Your task to perform on an android device: Do I have any events today? Image 0: 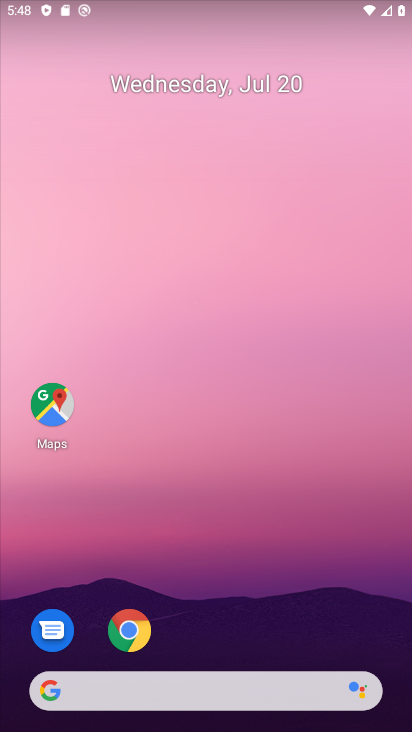
Step 0: drag from (330, 699) to (339, 59)
Your task to perform on an android device: Do I have any events today? Image 1: 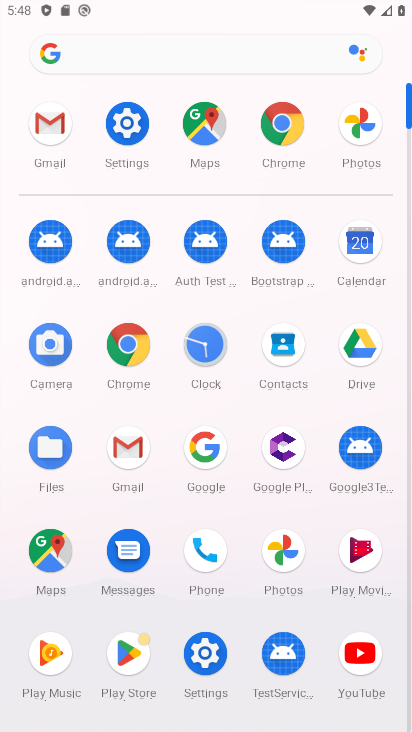
Step 1: click (342, 237)
Your task to perform on an android device: Do I have any events today? Image 2: 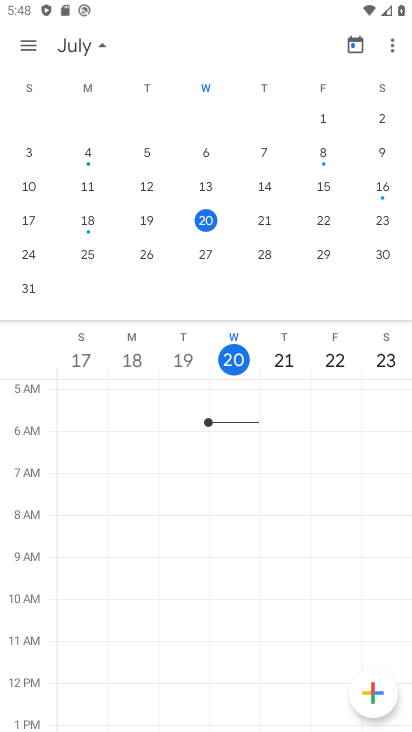
Step 2: click (210, 216)
Your task to perform on an android device: Do I have any events today? Image 3: 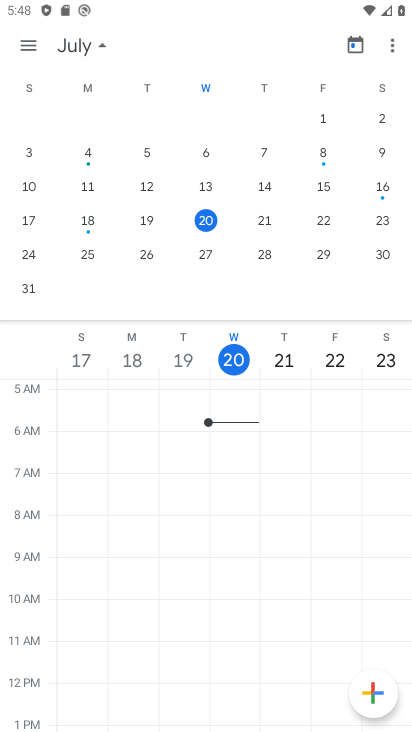
Step 3: task complete